Your task to perform on an android device: find snoozed emails in the gmail app Image 0: 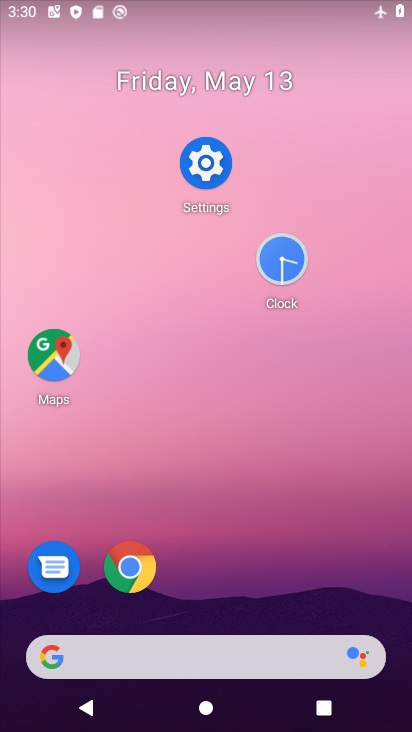
Step 0: drag from (262, 628) to (262, 92)
Your task to perform on an android device: find snoozed emails in the gmail app Image 1: 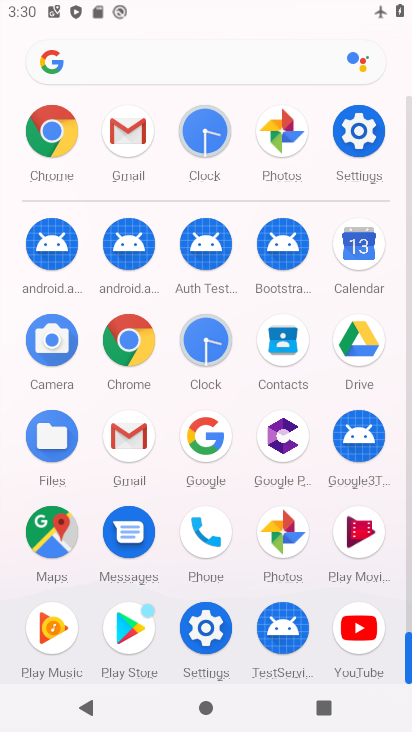
Step 1: click (139, 448)
Your task to perform on an android device: find snoozed emails in the gmail app Image 2: 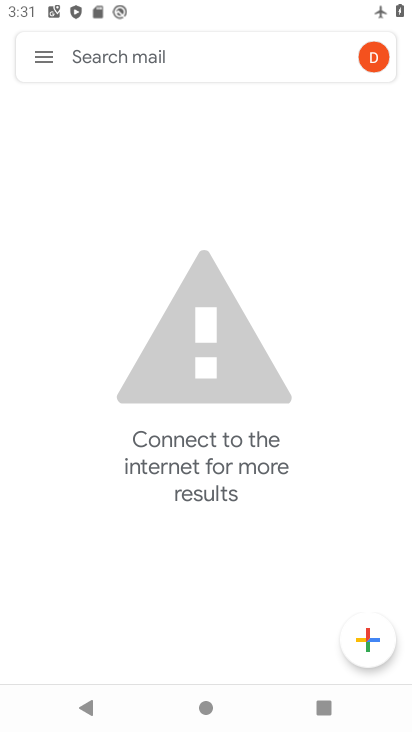
Step 2: press home button
Your task to perform on an android device: find snoozed emails in the gmail app Image 3: 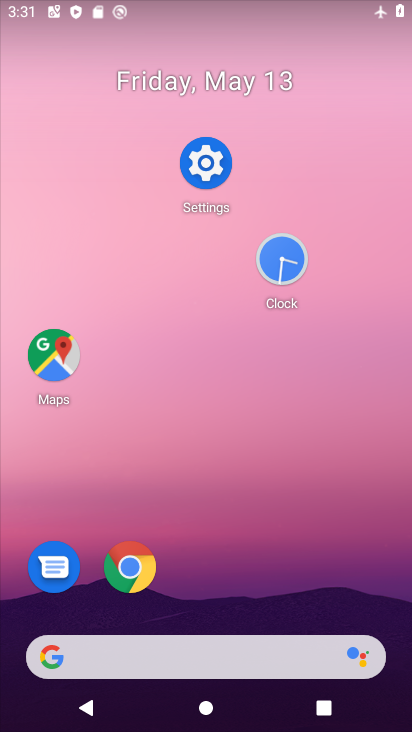
Step 3: drag from (268, 590) to (277, 228)
Your task to perform on an android device: find snoozed emails in the gmail app Image 4: 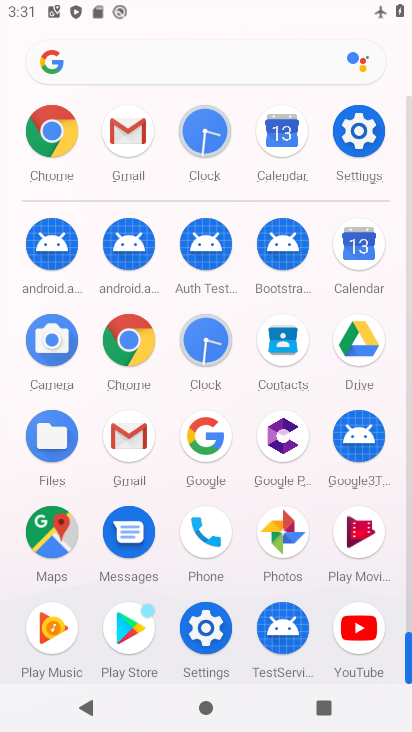
Step 4: click (136, 427)
Your task to perform on an android device: find snoozed emails in the gmail app Image 5: 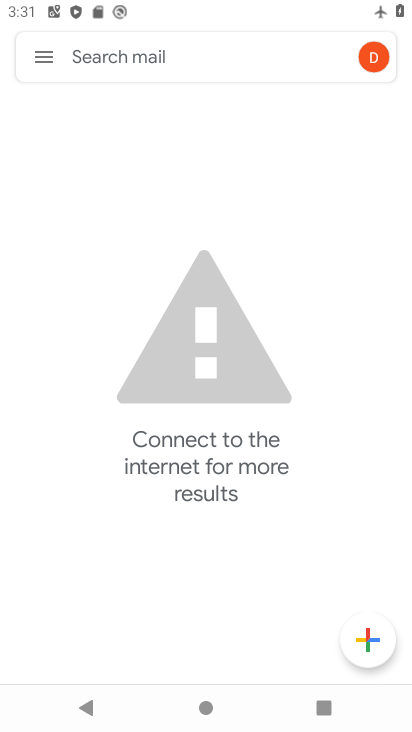
Step 5: click (42, 61)
Your task to perform on an android device: find snoozed emails in the gmail app Image 6: 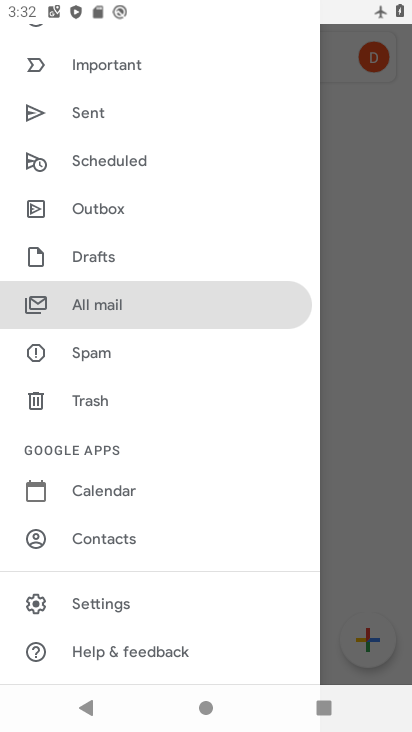
Step 6: task complete